Your task to perform on an android device: toggle pop-ups in chrome Image 0: 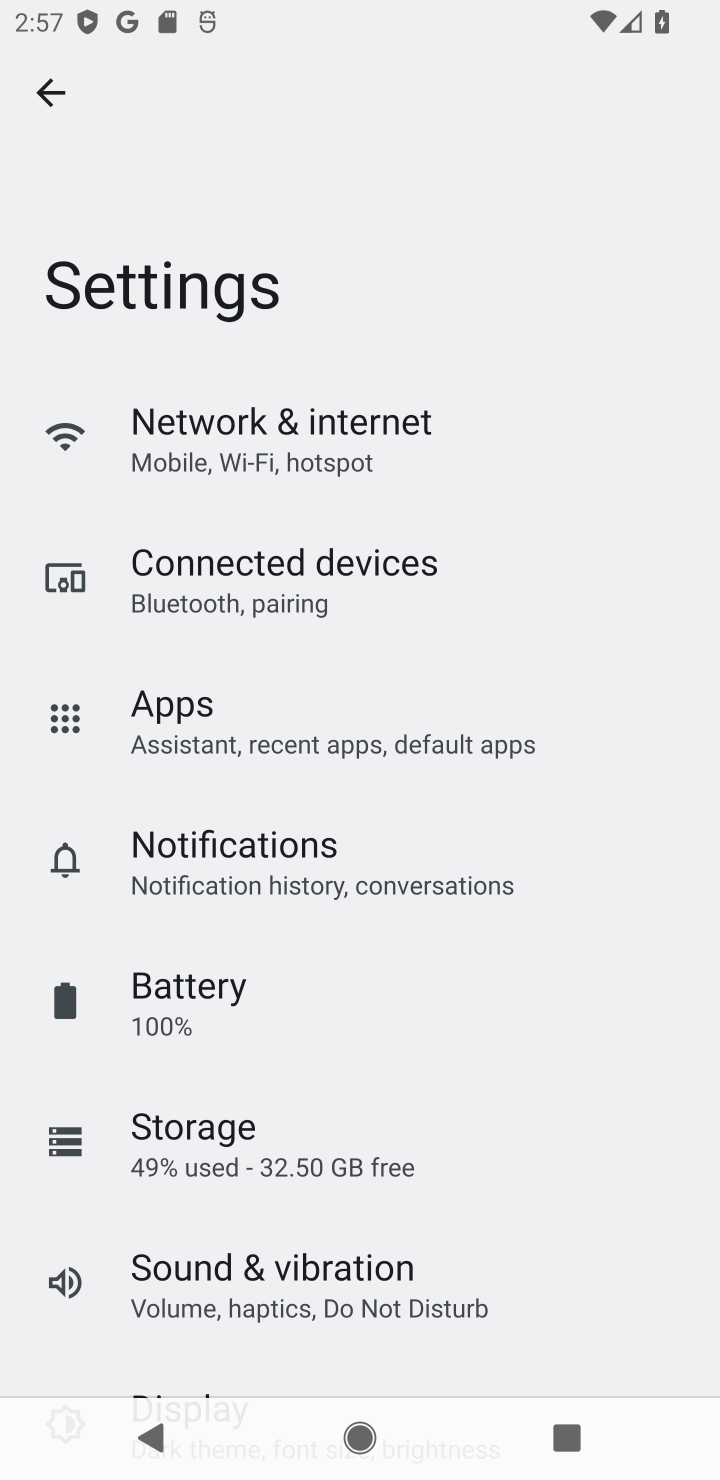
Step 0: press home button
Your task to perform on an android device: toggle pop-ups in chrome Image 1: 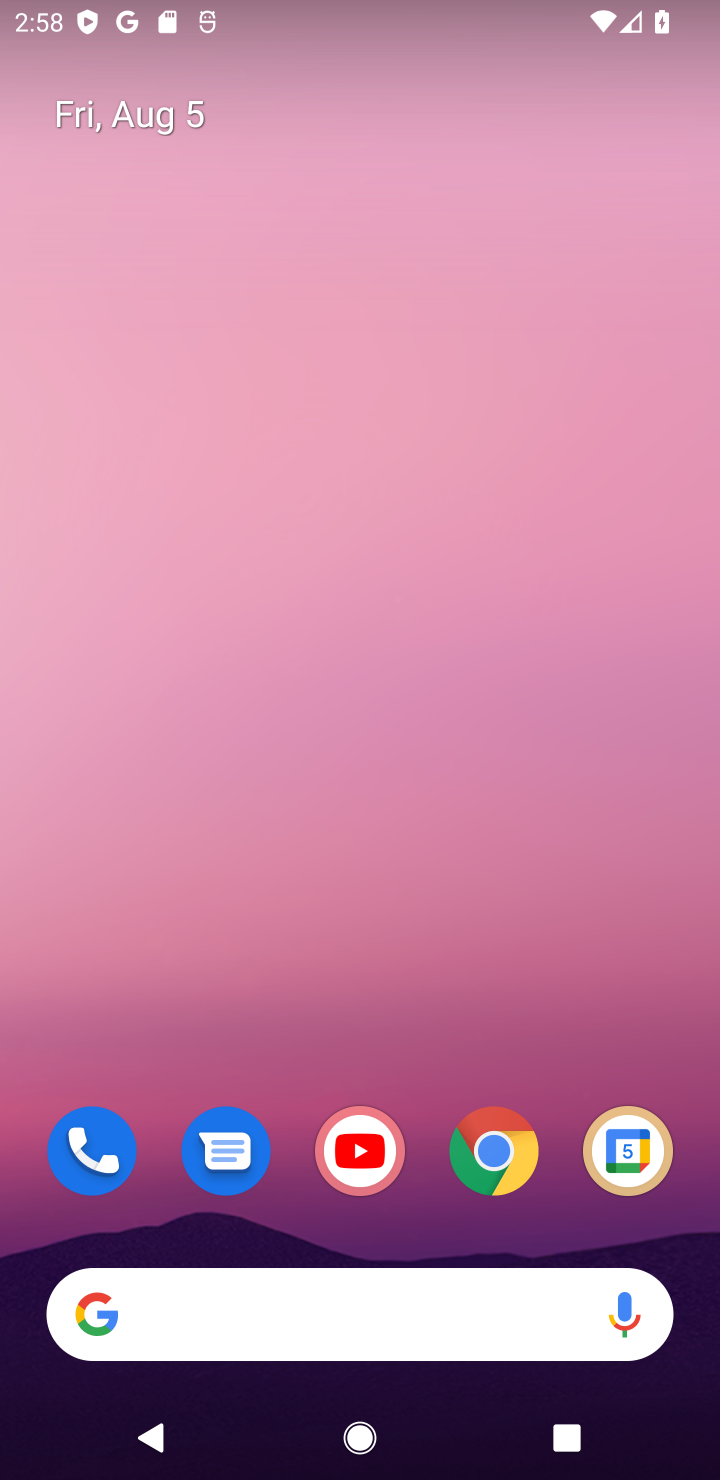
Step 1: click (494, 1169)
Your task to perform on an android device: toggle pop-ups in chrome Image 2: 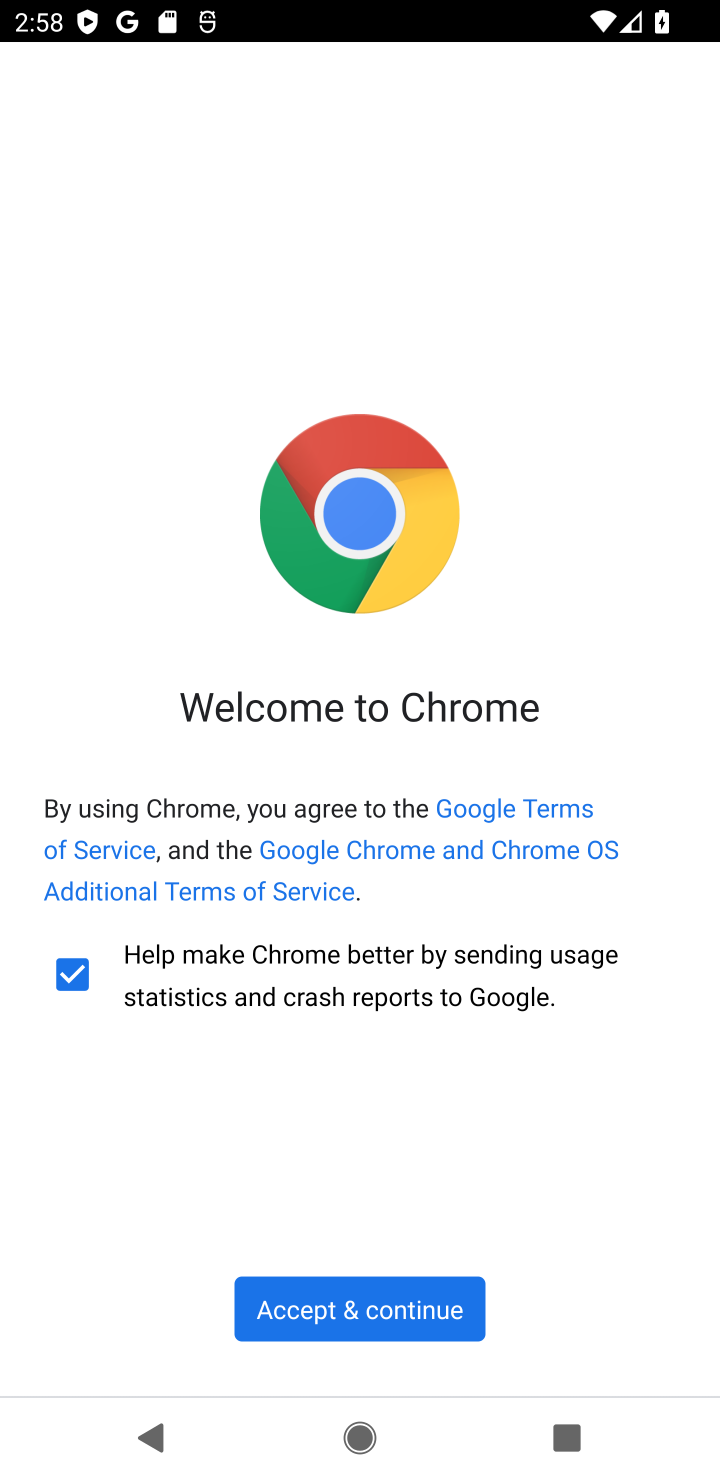
Step 2: click (399, 1288)
Your task to perform on an android device: toggle pop-ups in chrome Image 3: 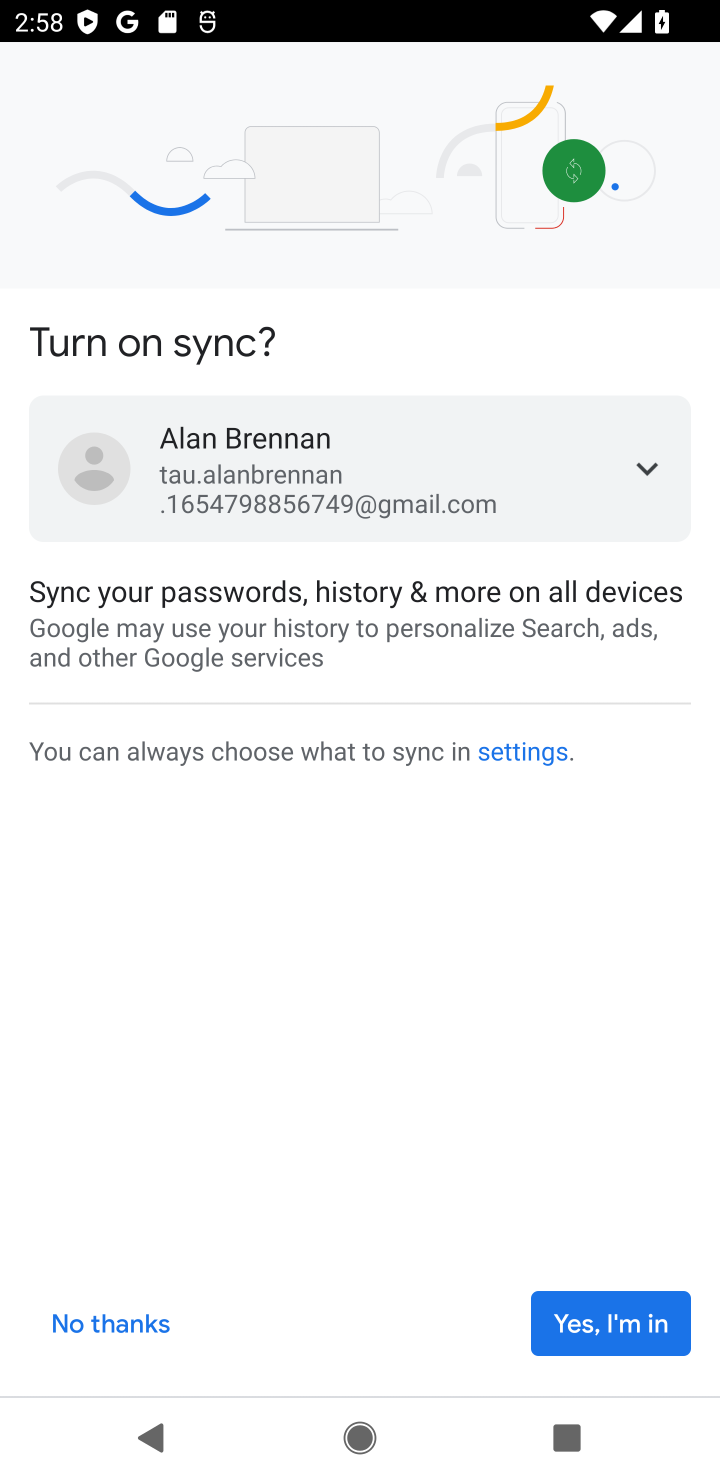
Step 3: click (608, 1327)
Your task to perform on an android device: toggle pop-ups in chrome Image 4: 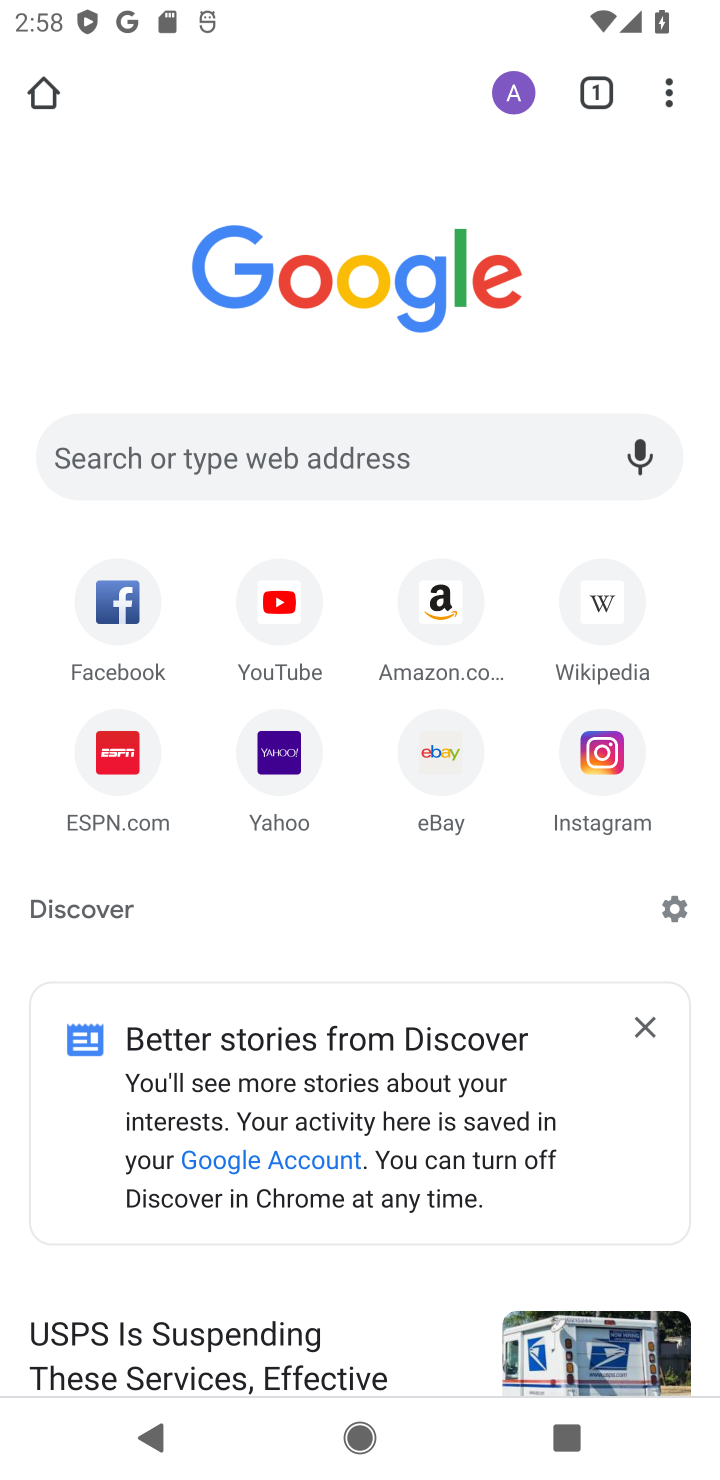
Step 4: click (660, 73)
Your task to perform on an android device: toggle pop-ups in chrome Image 5: 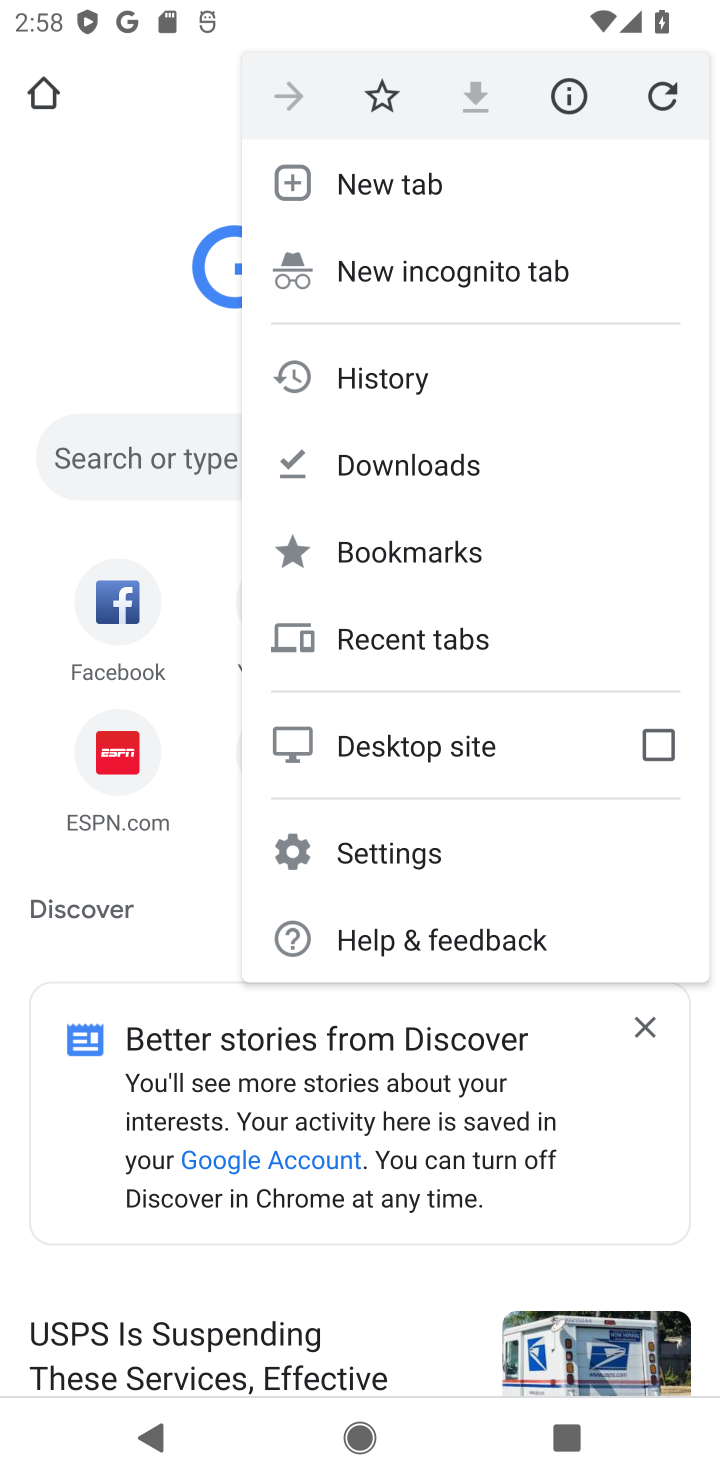
Step 5: click (445, 861)
Your task to perform on an android device: toggle pop-ups in chrome Image 6: 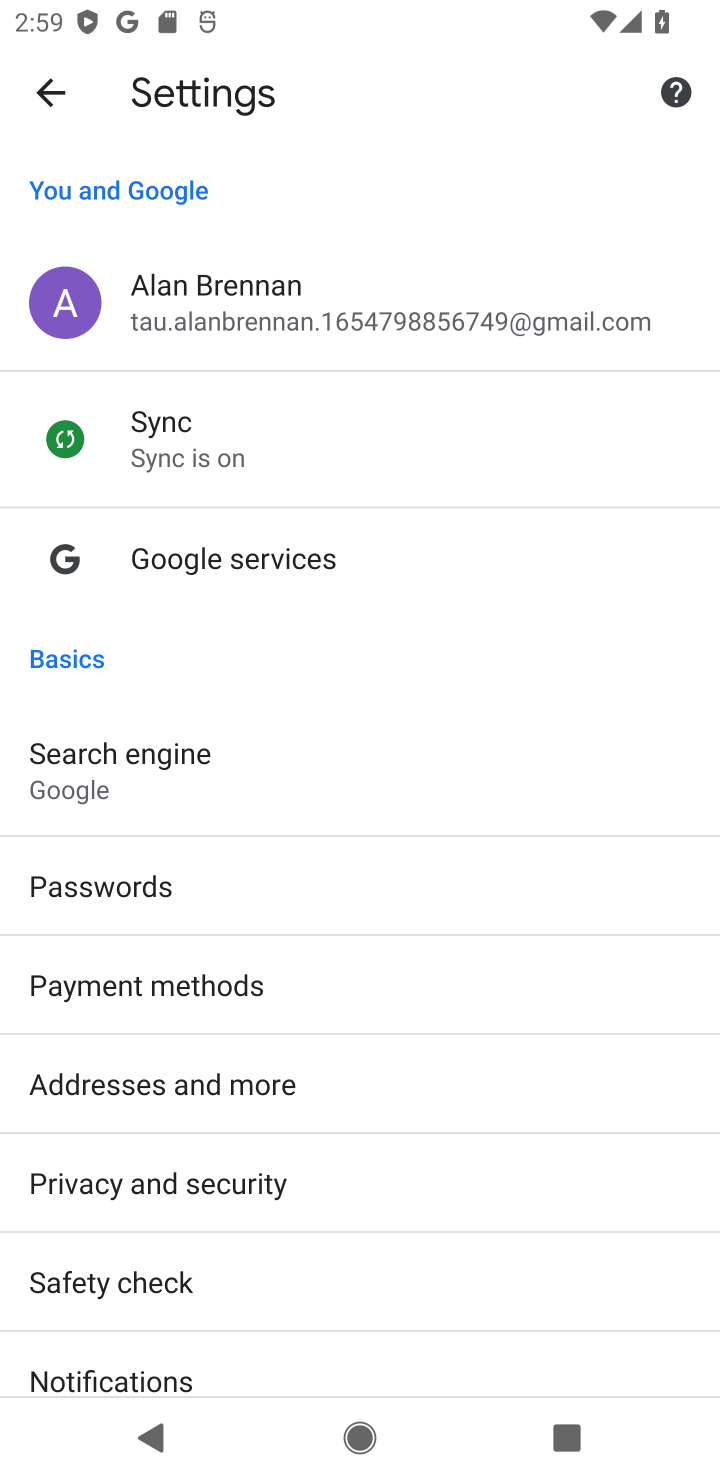
Step 6: drag from (269, 1137) to (269, 398)
Your task to perform on an android device: toggle pop-ups in chrome Image 7: 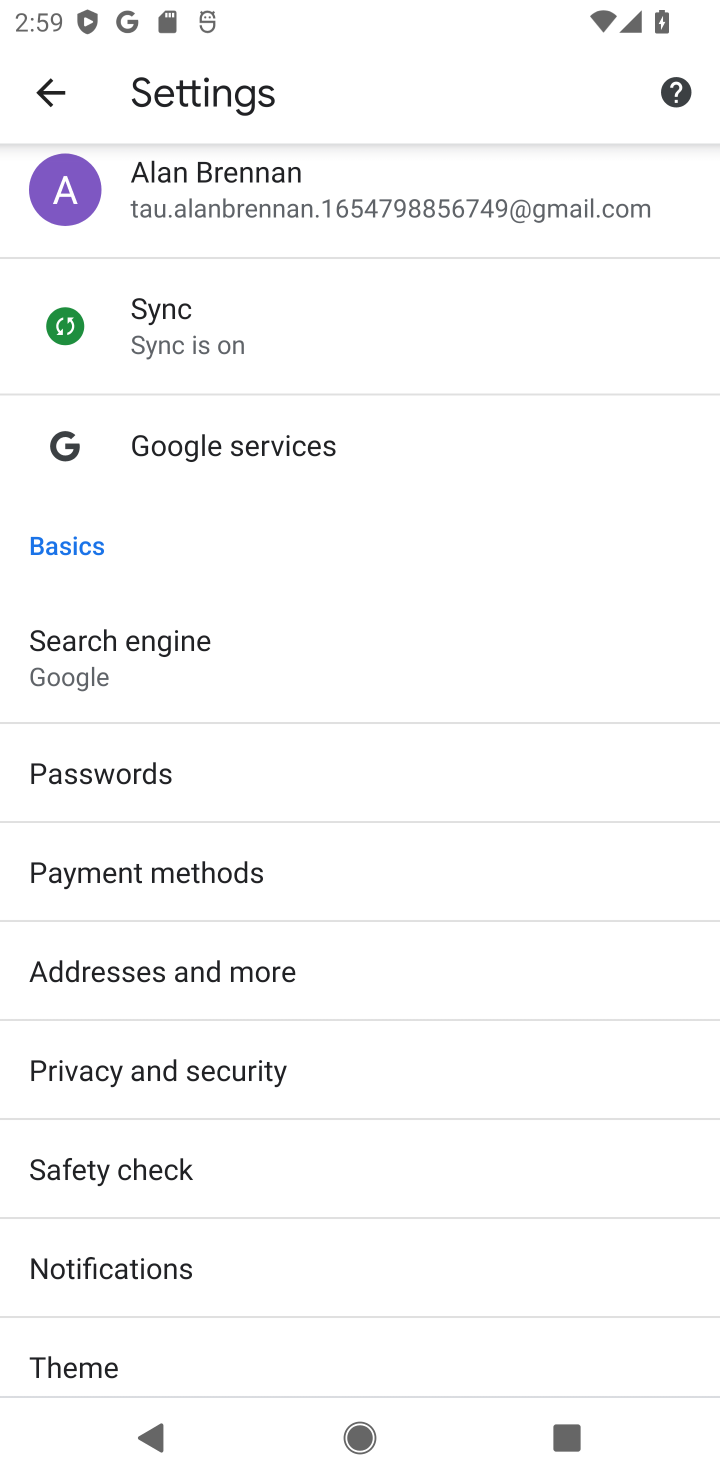
Step 7: drag from (198, 1354) to (189, 372)
Your task to perform on an android device: toggle pop-ups in chrome Image 8: 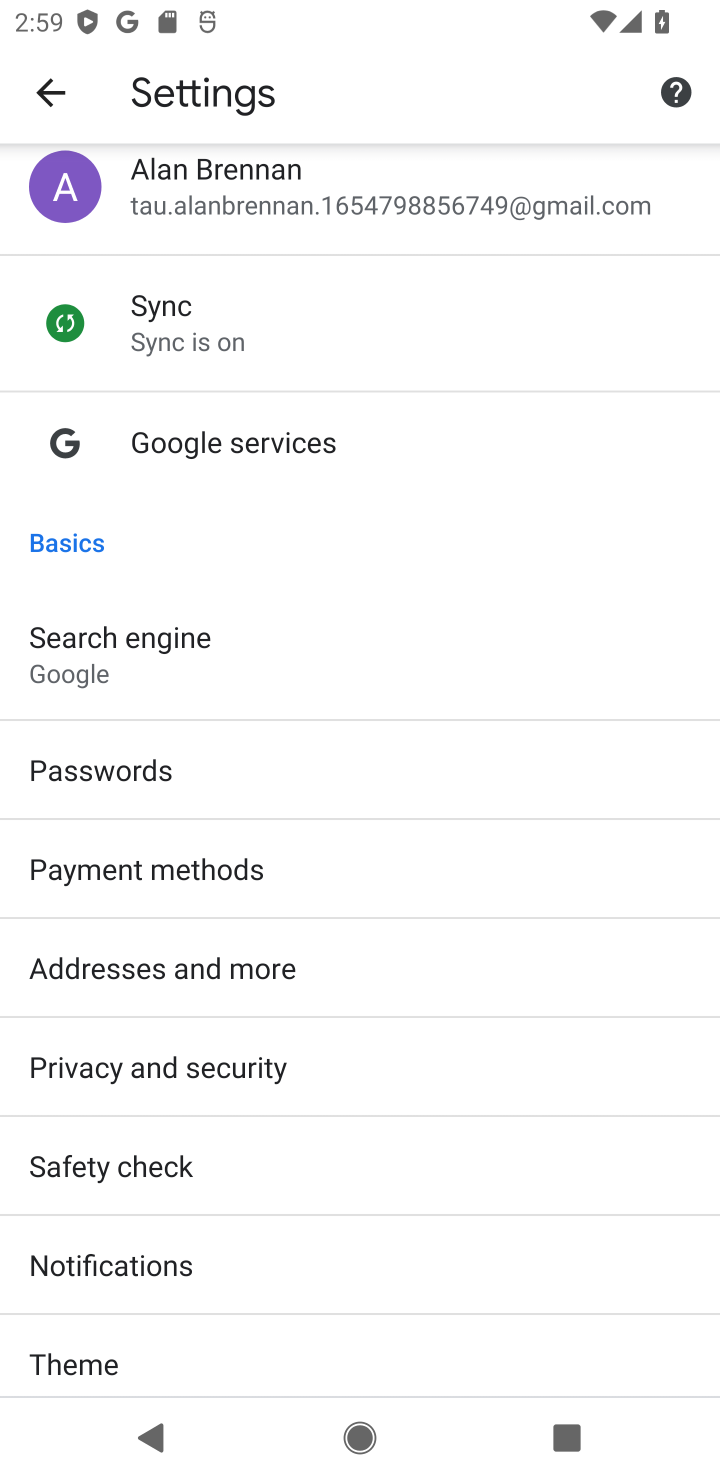
Step 8: drag from (201, 1172) to (143, 182)
Your task to perform on an android device: toggle pop-ups in chrome Image 9: 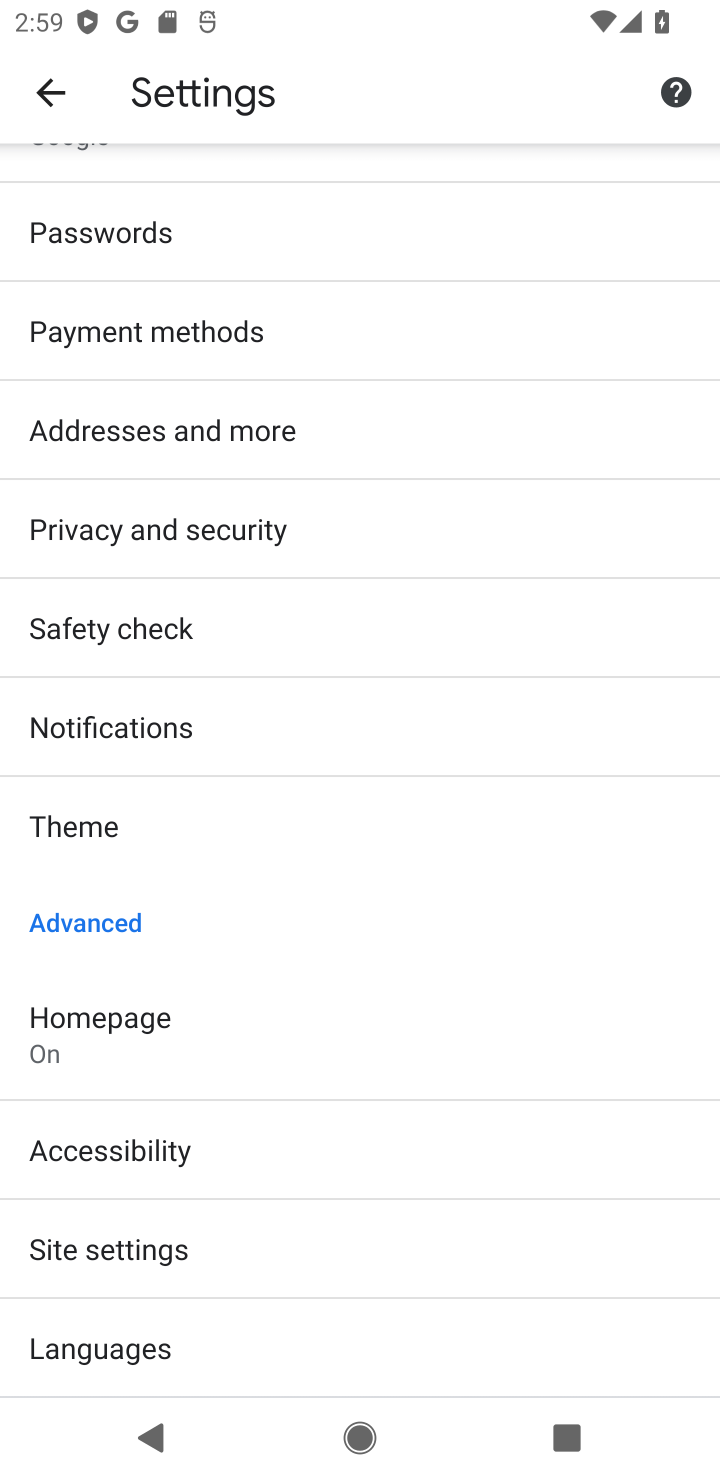
Step 9: click (130, 1240)
Your task to perform on an android device: toggle pop-ups in chrome Image 10: 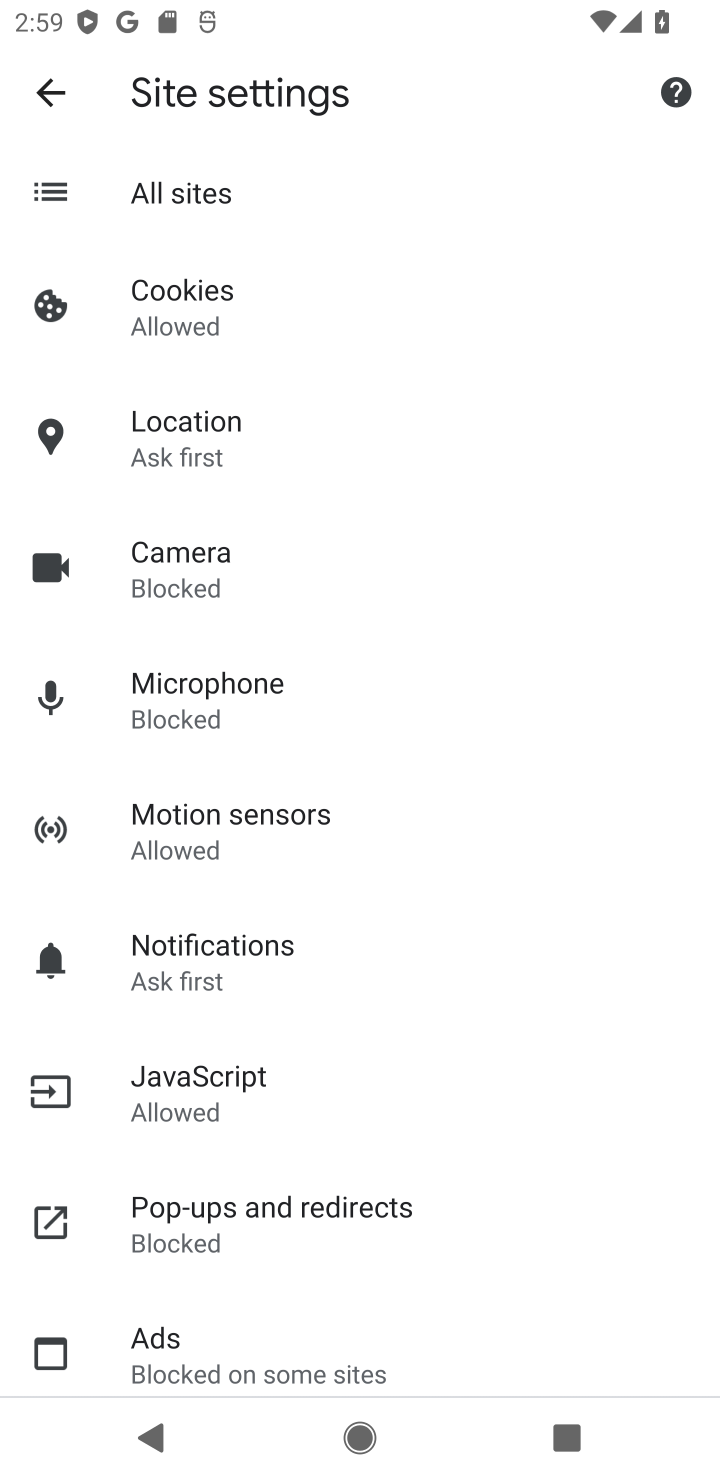
Step 10: click (333, 1210)
Your task to perform on an android device: toggle pop-ups in chrome Image 11: 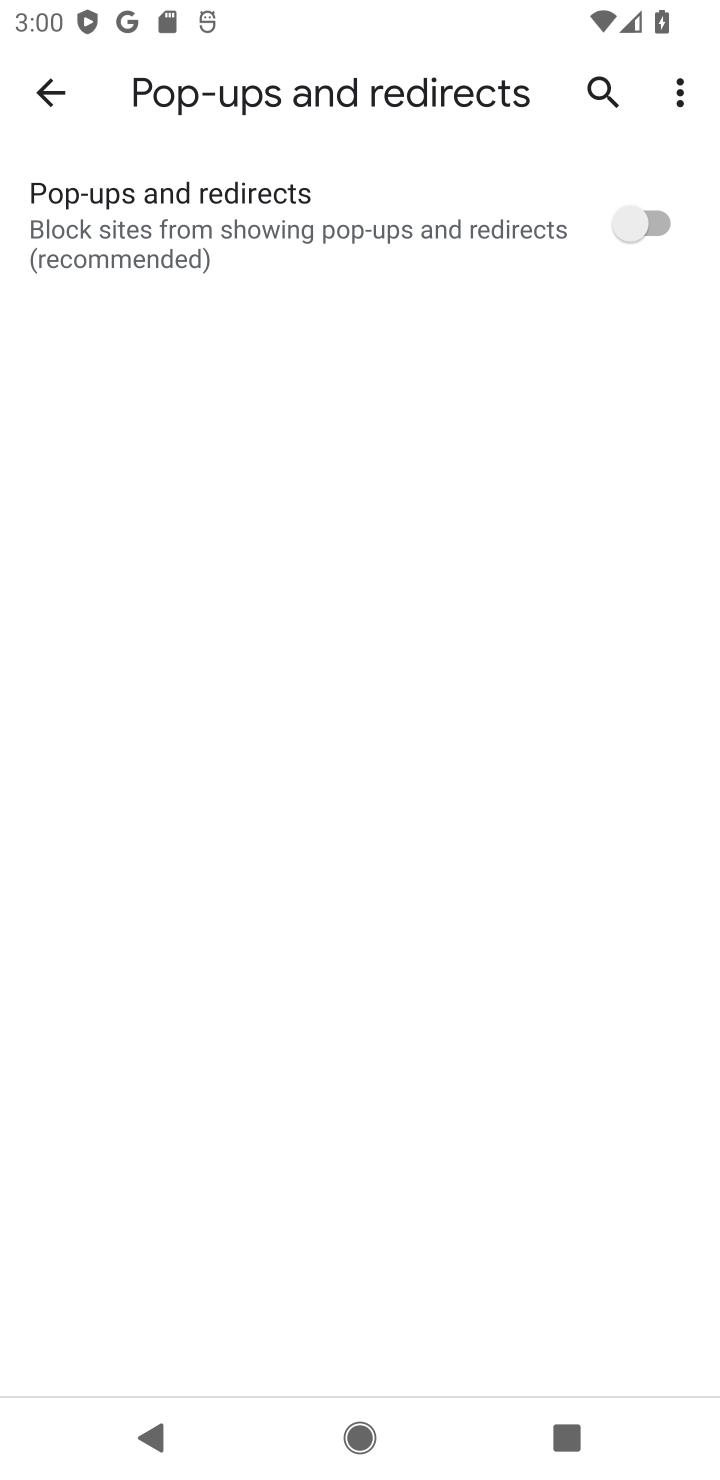
Step 11: click (643, 206)
Your task to perform on an android device: toggle pop-ups in chrome Image 12: 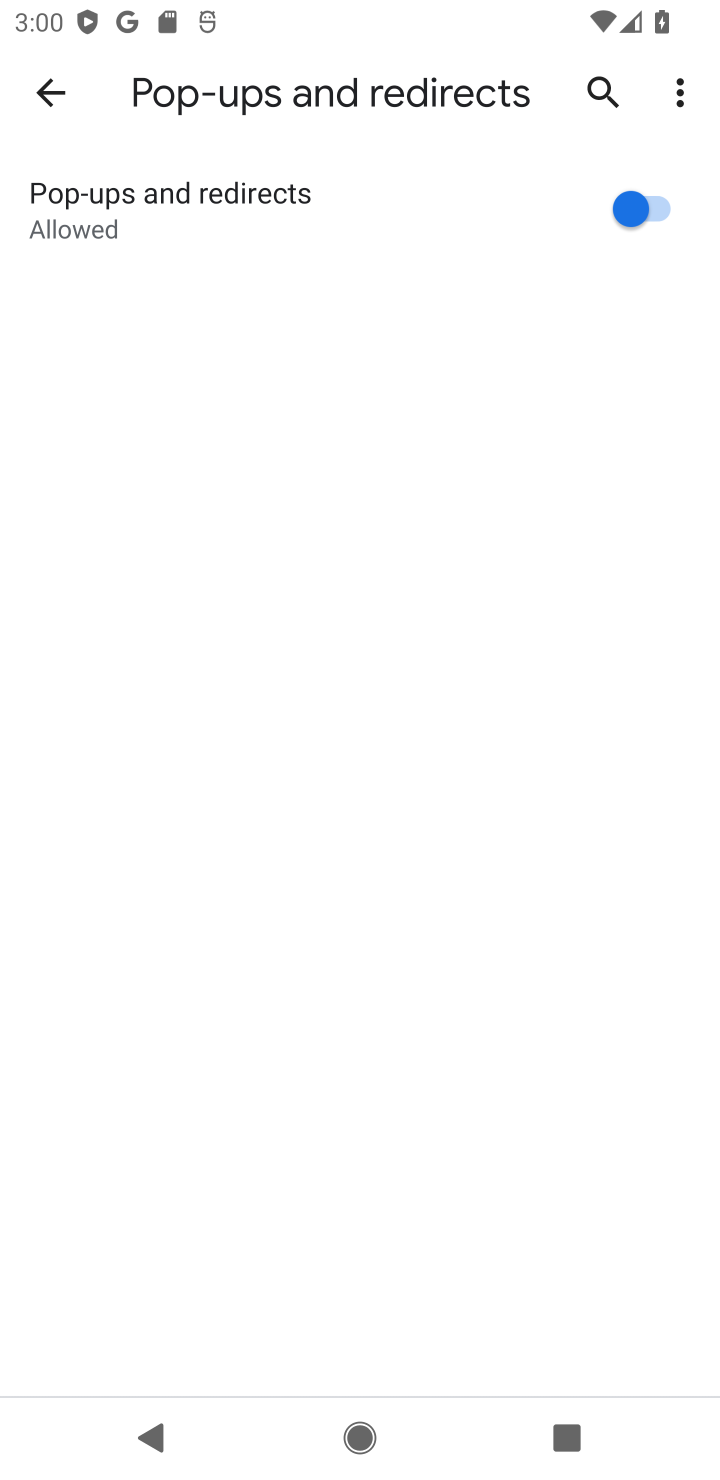
Step 12: task complete